Your task to perform on an android device: Open Reddit.com Image 0: 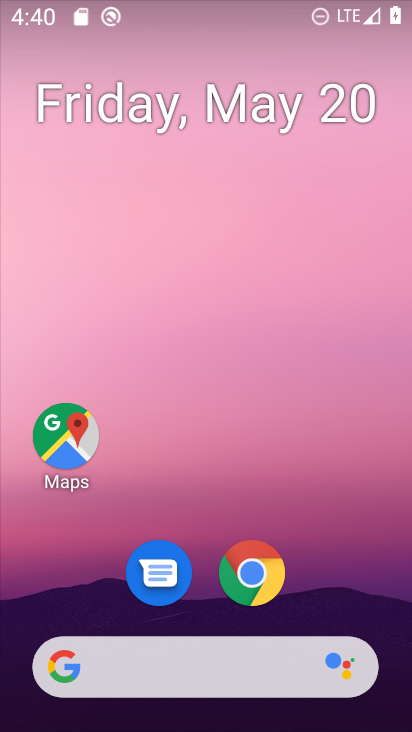
Step 0: click (255, 572)
Your task to perform on an android device: Open Reddit.com Image 1: 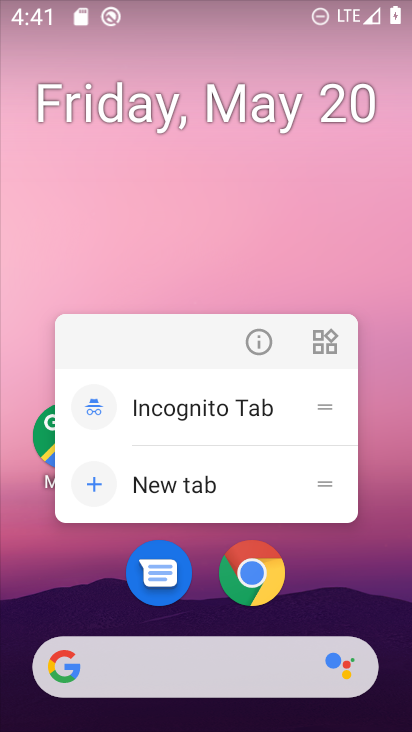
Step 1: click (258, 556)
Your task to perform on an android device: Open Reddit.com Image 2: 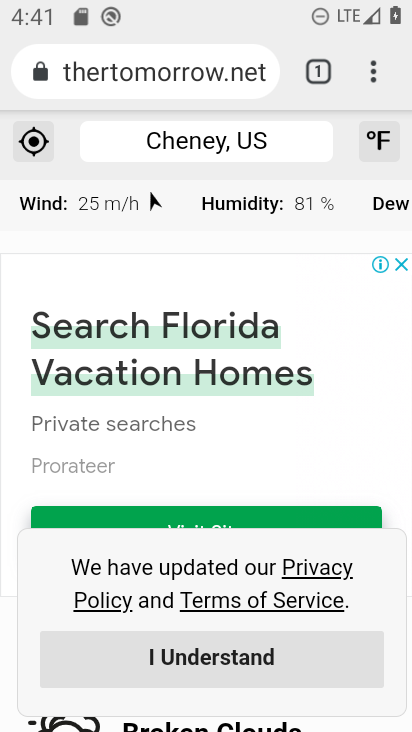
Step 2: click (140, 67)
Your task to perform on an android device: Open Reddit.com Image 3: 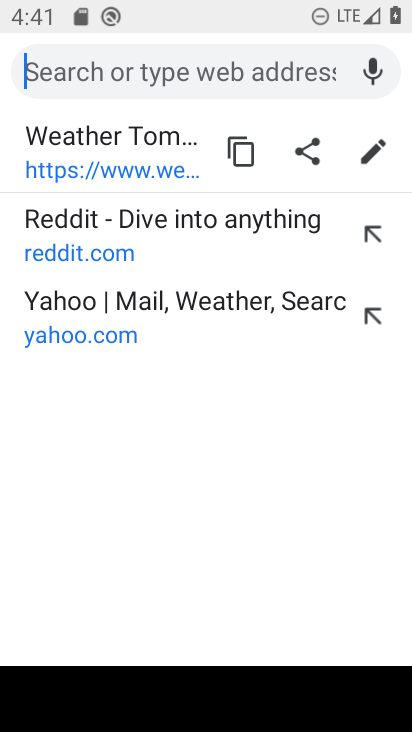
Step 3: click (113, 240)
Your task to perform on an android device: Open Reddit.com Image 4: 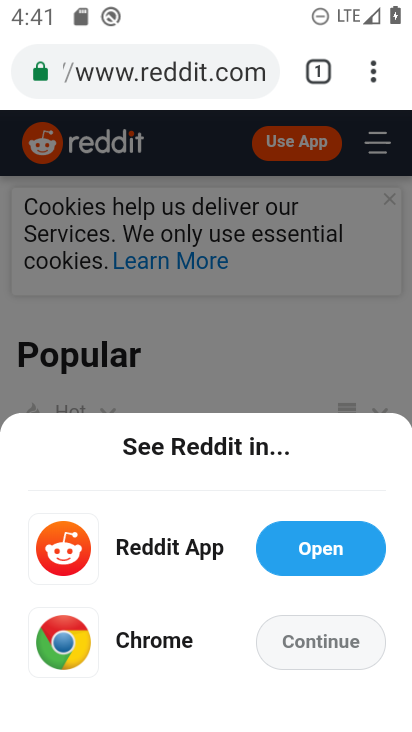
Step 4: click (343, 649)
Your task to perform on an android device: Open Reddit.com Image 5: 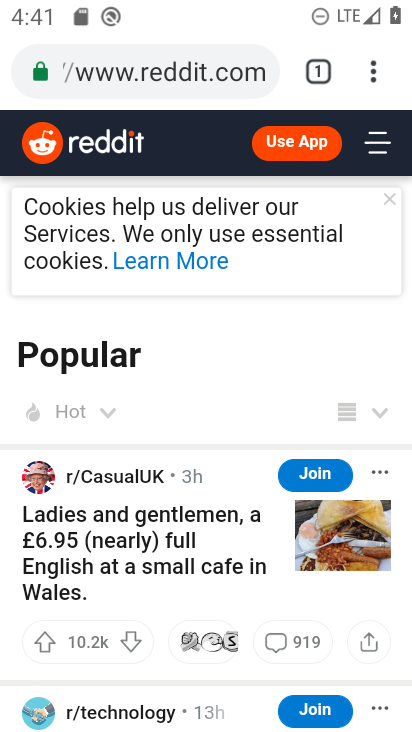
Step 5: task complete